Your task to perform on an android device: create a new album in the google photos Image 0: 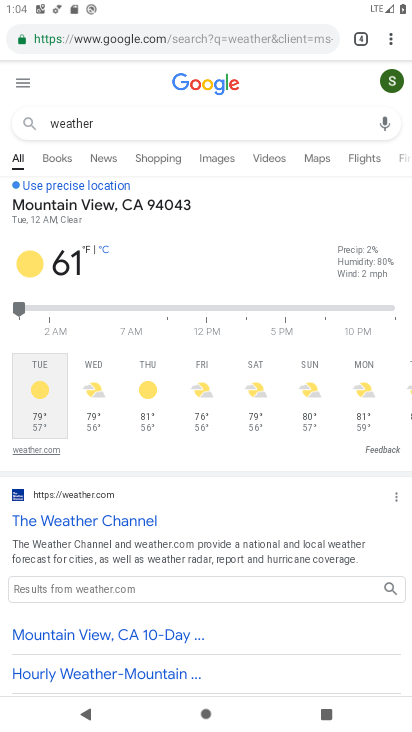
Step 0: press home button
Your task to perform on an android device: create a new album in the google photos Image 1: 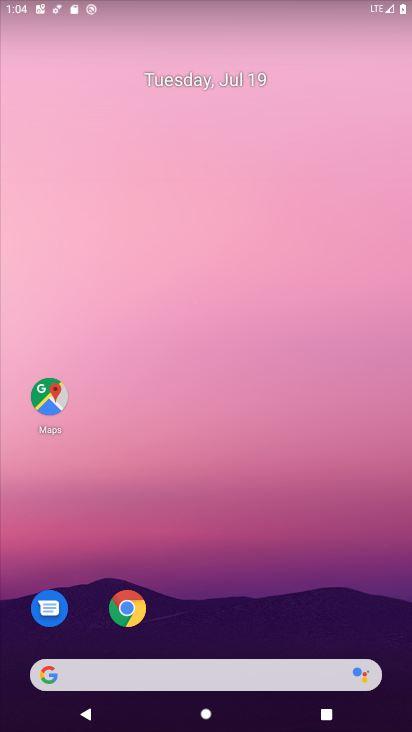
Step 1: drag from (260, 571) to (302, 47)
Your task to perform on an android device: create a new album in the google photos Image 2: 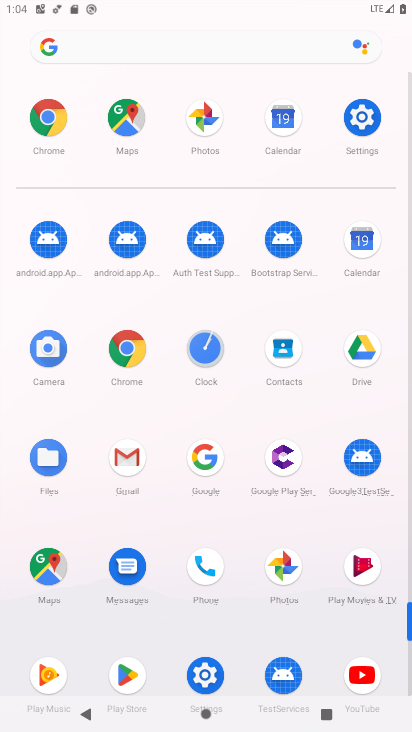
Step 2: click (284, 576)
Your task to perform on an android device: create a new album in the google photos Image 3: 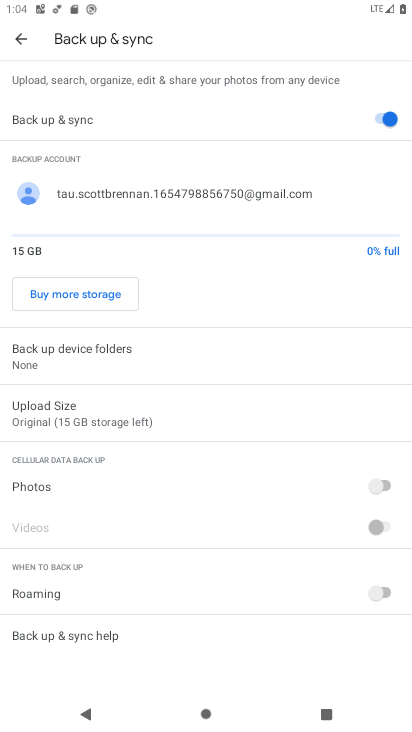
Step 3: press back button
Your task to perform on an android device: create a new album in the google photos Image 4: 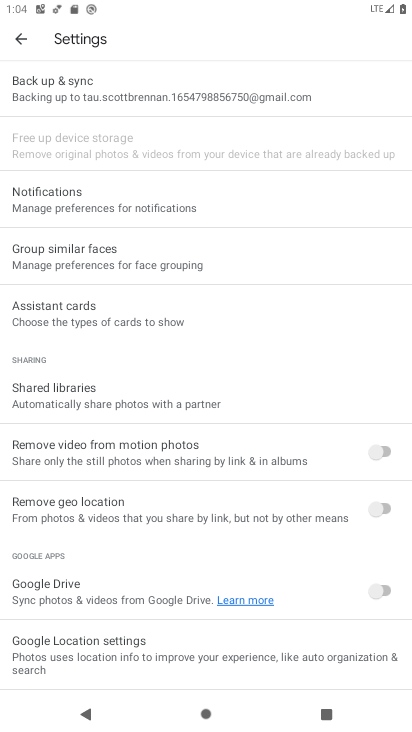
Step 4: press back button
Your task to perform on an android device: create a new album in the google photos Image 5: 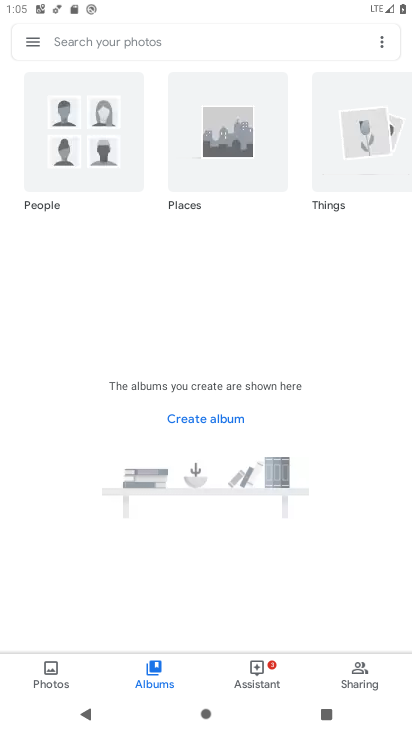
Step 5: click (112, 168)
Your task to perform on an android device: create a new album in the google photos Image 6: 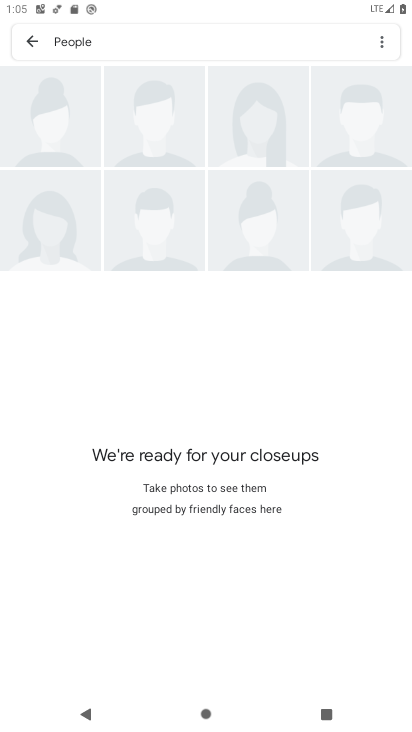
Step 6: click (288, 529)
Your task to perform on an android device: create a new album in the google photos Image 7: 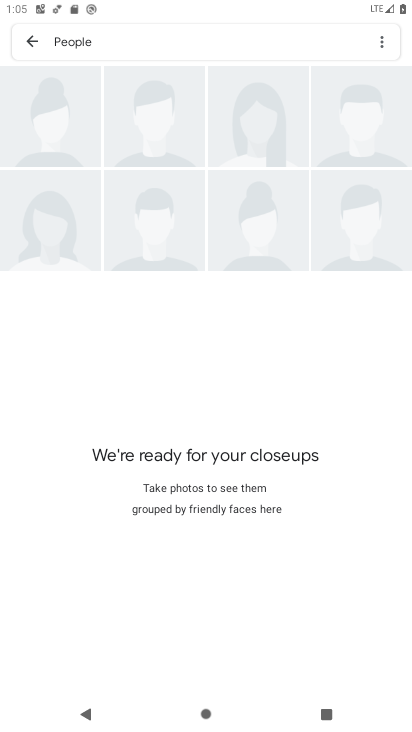
Step 7: click (85, 710)
Your task to perform on an android device: create a new album in the google photos Image 8: 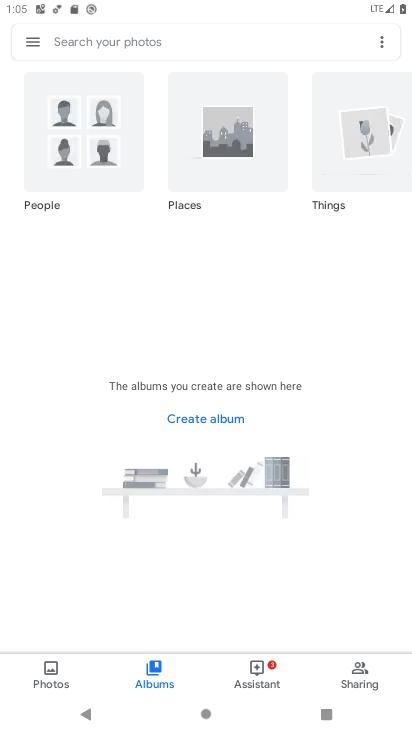
Step 8: click (208, 422)
Your task to perform on an android device: create a new album in the google photos Image 9: 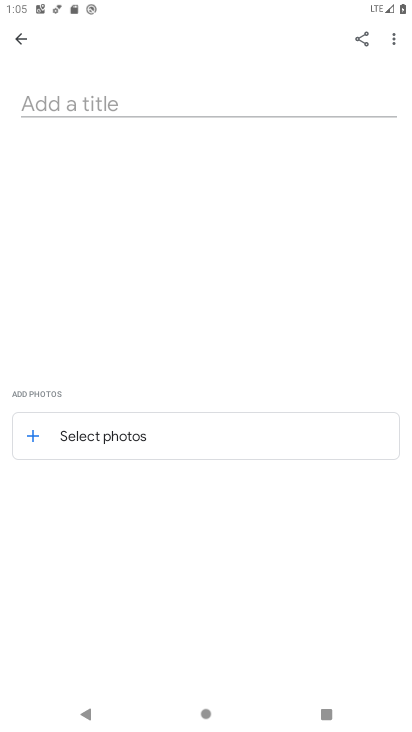
Step 9: click (174, 449)
Your task to perform on an android device: create a new album in the google photos Image 10: 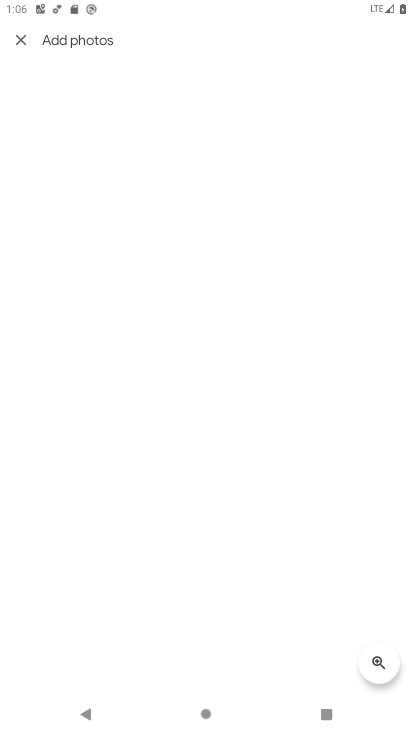
Step 10: click (26, 46)
Your task to perform on an android device: create a new album in the google photos Image 11: 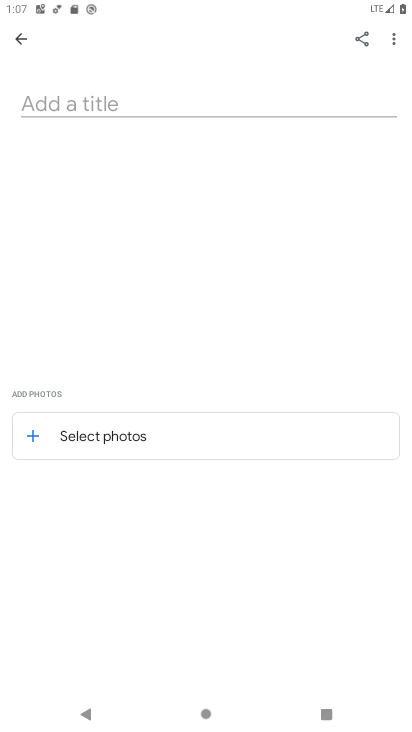
Step 11: click (150, 94)
Your task to perform on an android device: create a new album in the google photos Image 12: 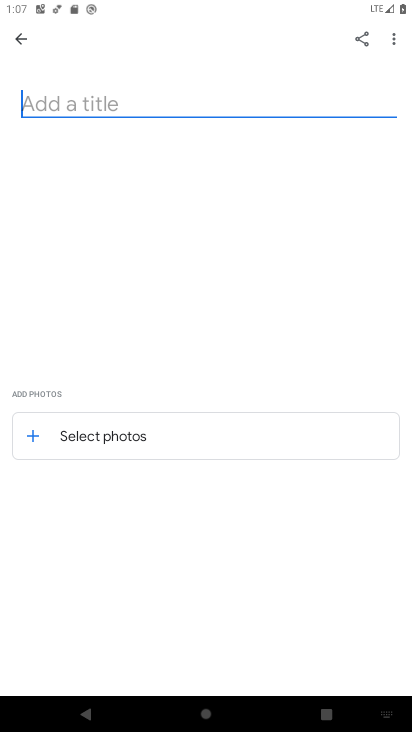
Step 12: type "fsdvd"
Your task to perform on an android device: create a new album in the google photos Image 13: 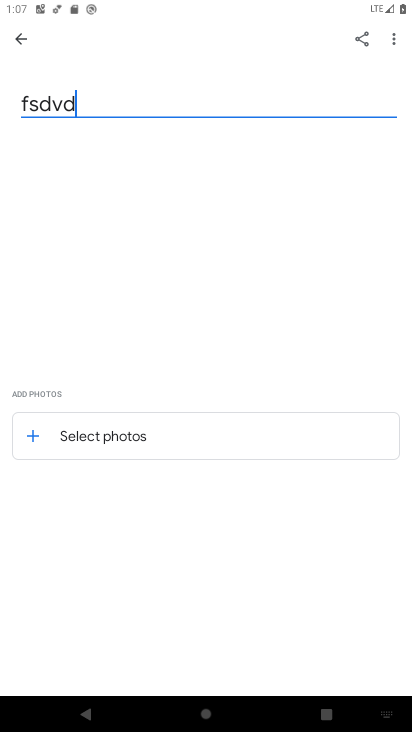
Step 13: type ""
Your task to perform on an android device: create a new album in the google photos Image 14: 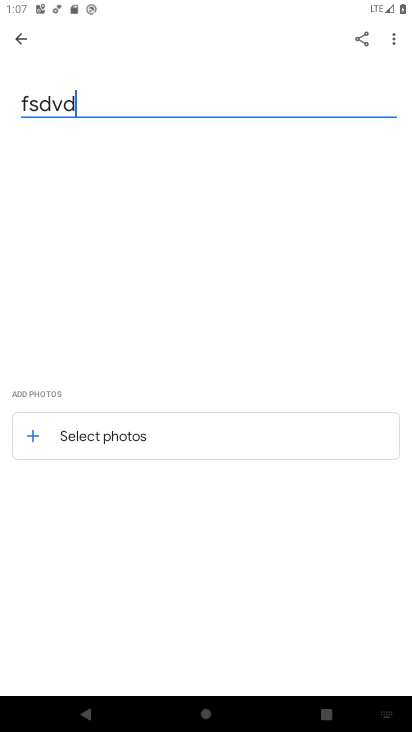
Step 14: click (393, 48)
Your task to perform on an android device: create a new album in the google photos Image 15: 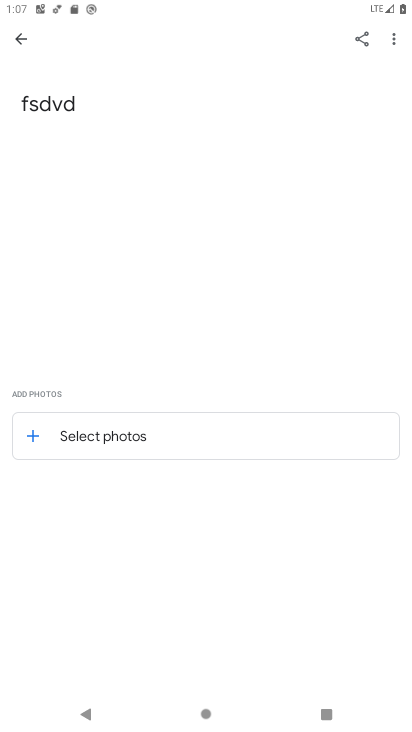
Step 15: task complete